Your task to perform on an android device: Open internet settings Image 0: 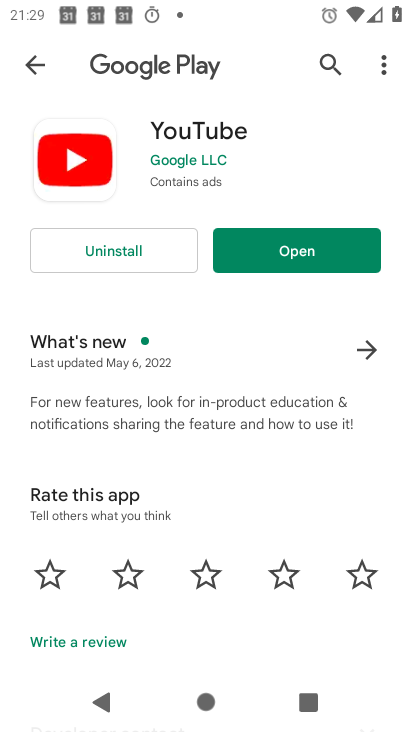
Step 0: press home button
Your task to perform on an android device: Open internet settings Image 1: 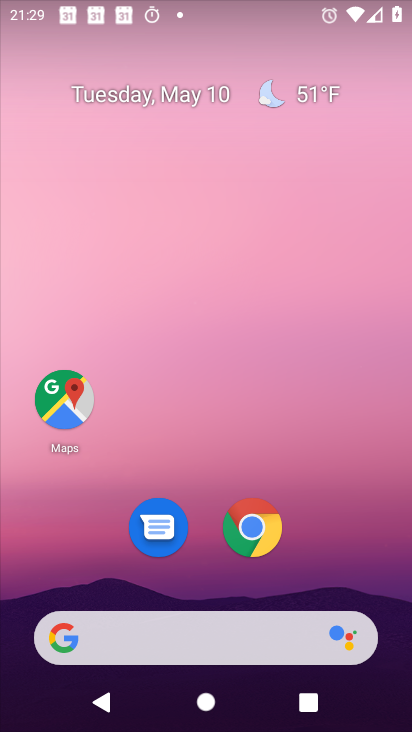
Step 1: drag from (242, 593) to (253, 21)
Your task to perform on an android device: Open internet settings Image 2: 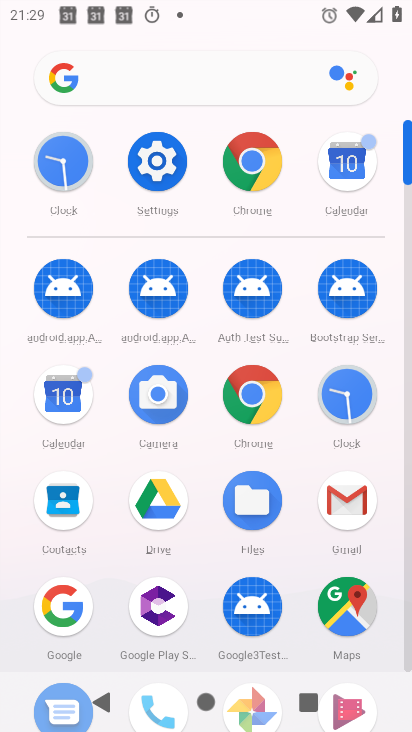
Step 2: click (171, 163)
Your task to perform on an android device: Open internet settings Image 3: 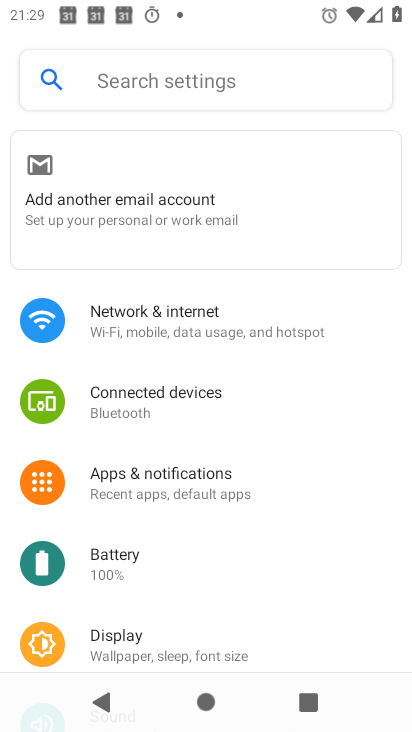
Step 3: click (180, 297)
Your task to perform on an android device: Open internet settings Image 4: 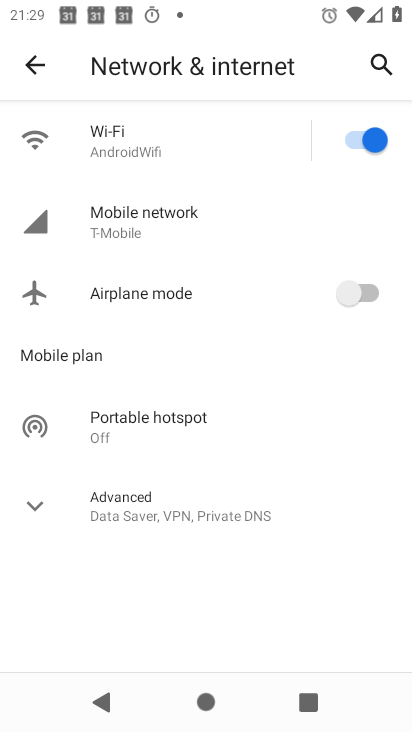
Step 4: click (163, 235)
Your task to perform on an android device: Open internet settings Image 5: 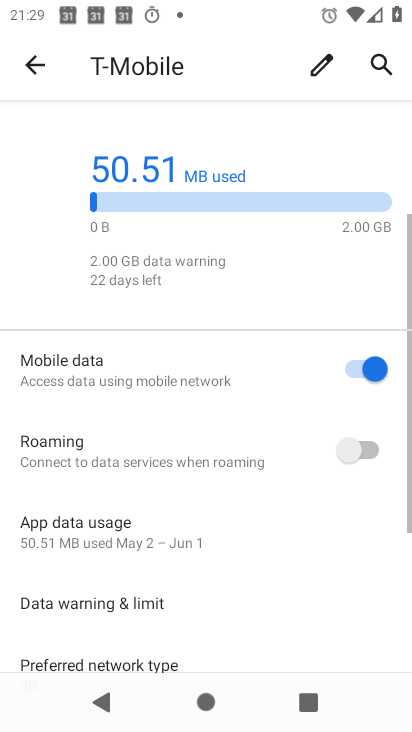
Step 5: task complete